Your task to perform on an android device: change the clock display to digital Image 0: 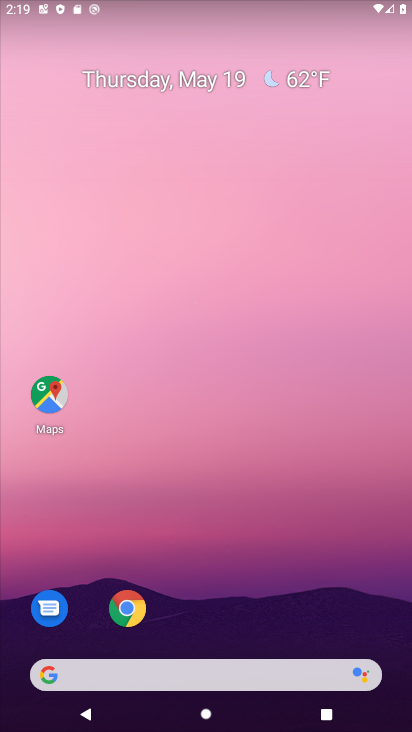
Step 0: drag from (265, 607) to (255, 131)
Your task to perform on an android device: change the clock display to digital Image 1: 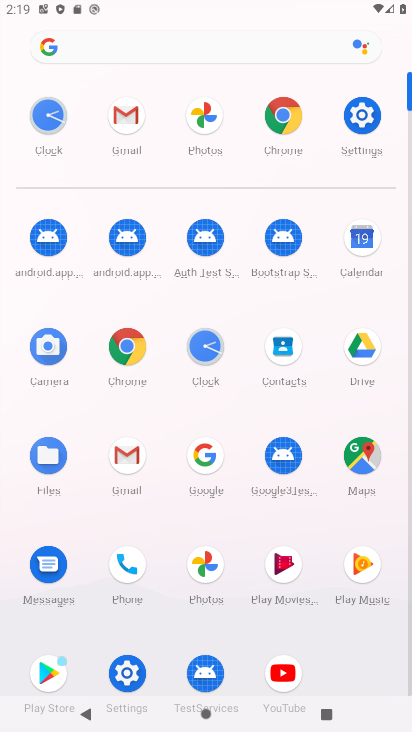
Step 1: click (355, 123)
Your task to perform on an android device: change the clock display to digital Image 2: 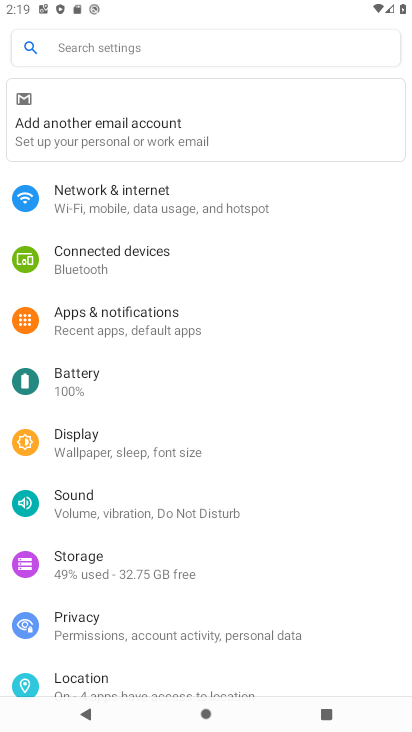
Step 2: click (72, 707)
Your task to perform on an android device: change the clock display to digital Image 3: 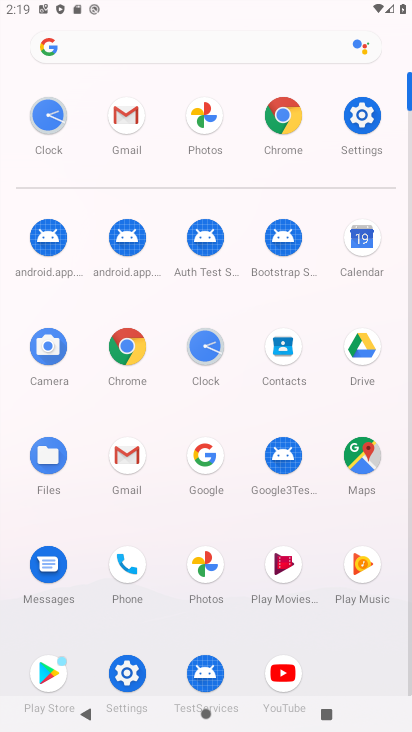
Step 3: click (218, 395)
Your task to perform on an android device: change the clock display to digital Image 4: 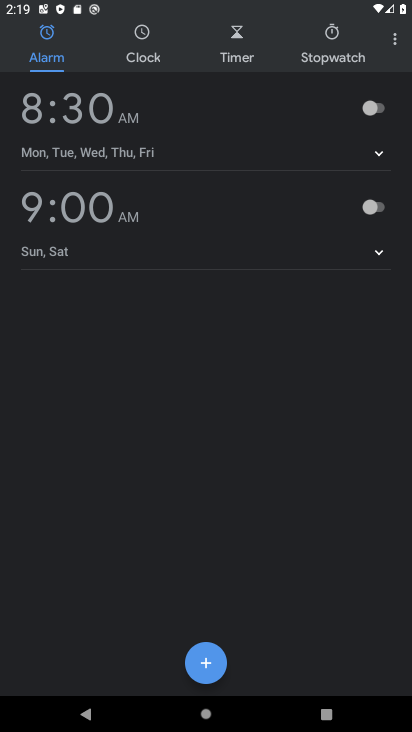
Step 4: click (399, 41)
Your task to perform on an android device: change the clock display to digital Image 5: 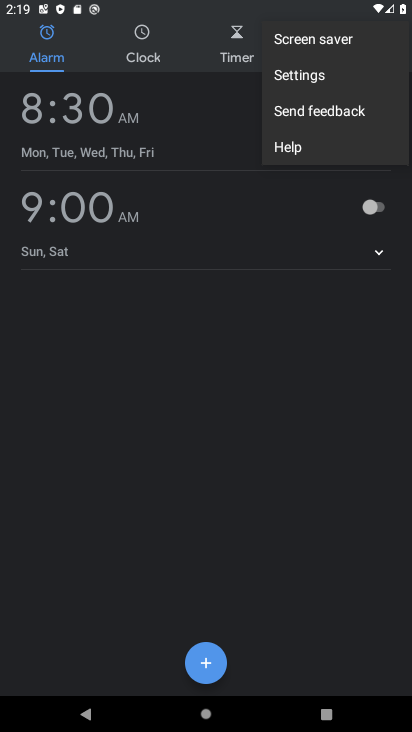
Step 5: click (337, 73)
Your task to perform on an android device: change the clock display to digital Image 6: 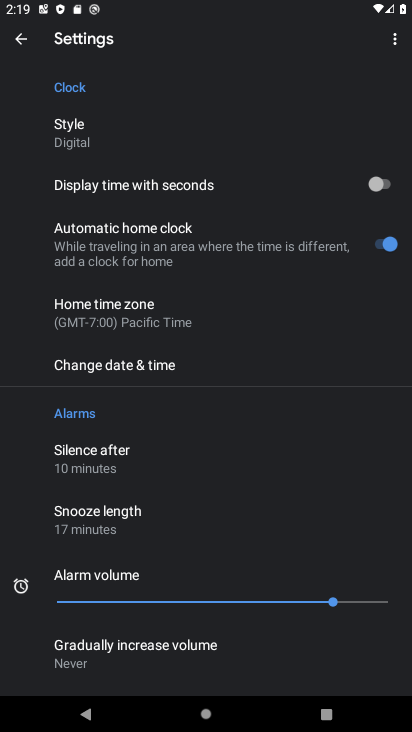
Step 6: click (195, 116)
Your task to perform on an android device: change the clock display to digital Image 7: 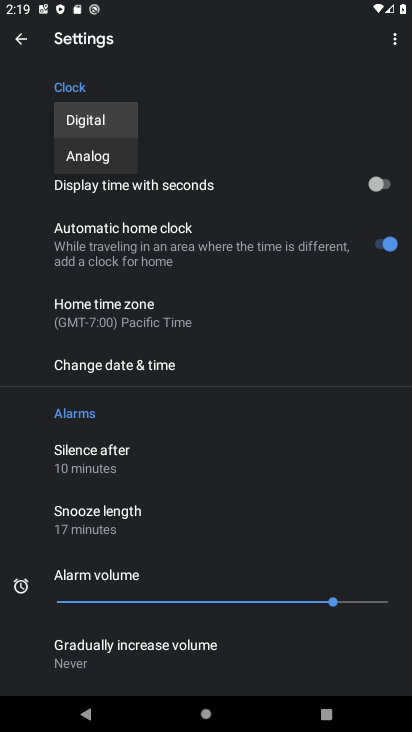
Step 7: click (120, 116)
Your task to perform on an android device: change the clock display to digital Image 8: 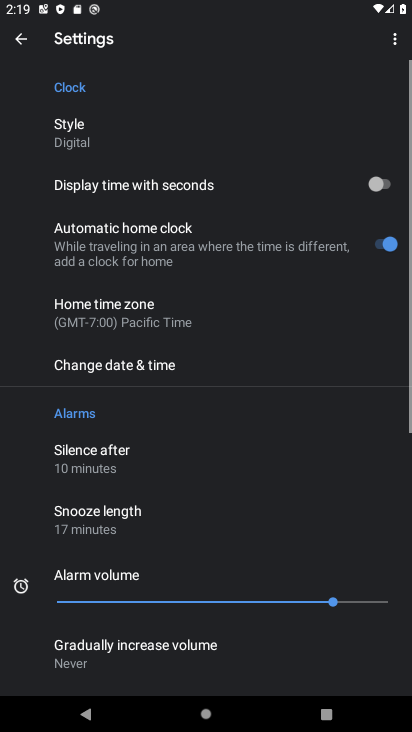
Step 8: task complete